Your task to perform on an android device: open chrome and create a bookmark for the current page Image 0: 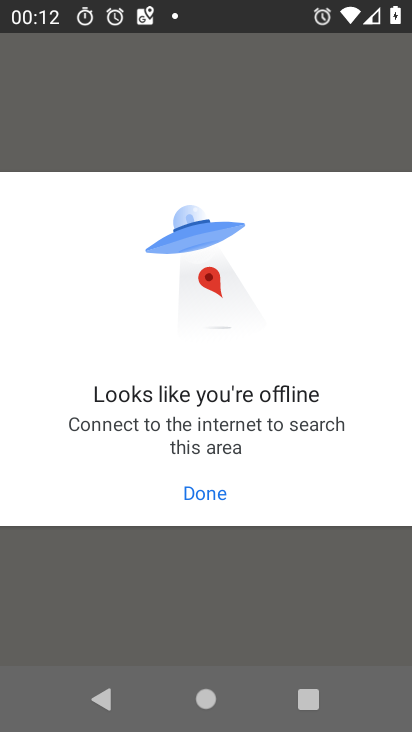
Step 0: drag from (232, 726) to (208, 140)
Your task to perform on an android device: open chrome and create a bookmark for the current page Image 1: 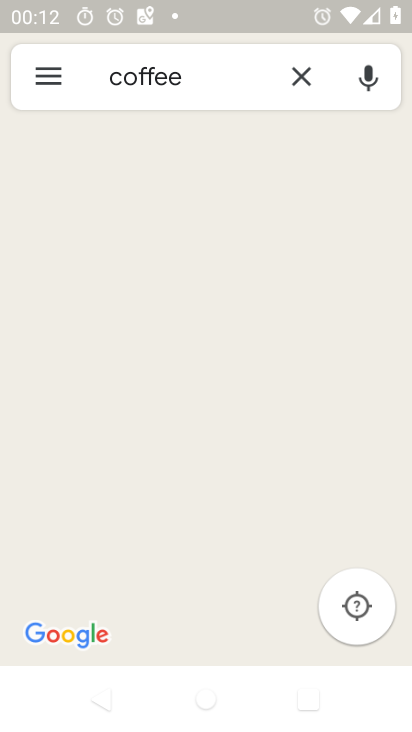
Step 1: press home button
Your task to perform on an android device: open chrome and create a bookmark for the current page Image 2: 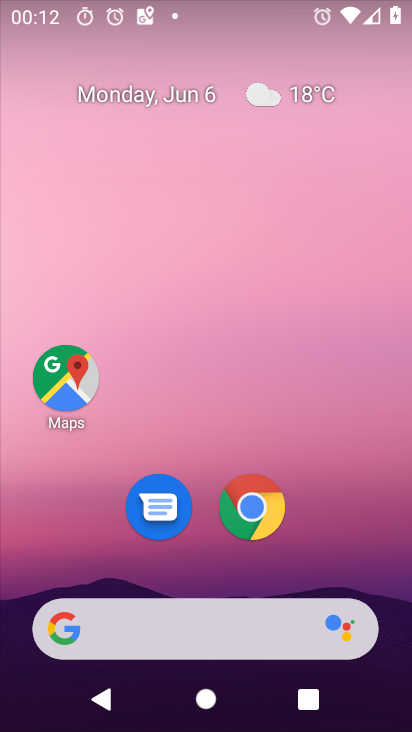
Step 2: click (256, 512)
Your task to perform on an android device: open chrome and create a bookmark for the current page Image 3: 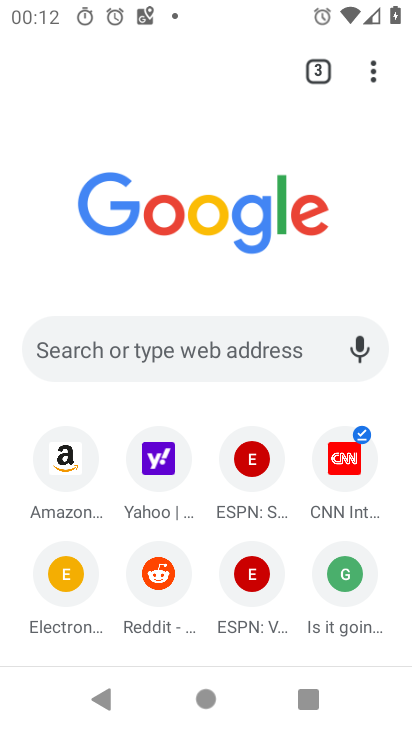
Step 3: click (373, 78)
Your task to perform on an android device: open chrome and create a bookmark for the current page Image 4: 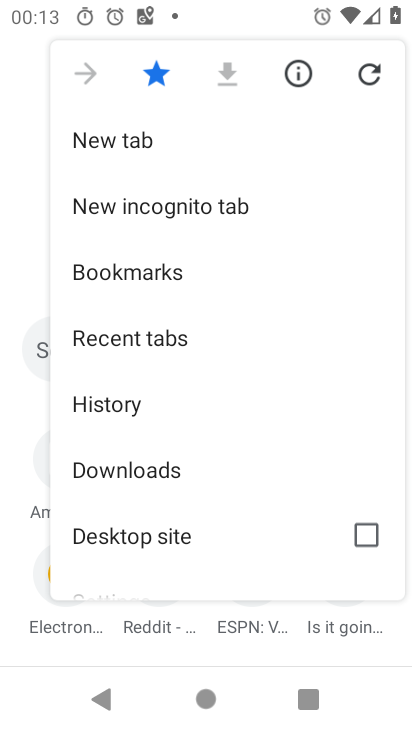
Step 4: task complete